Your task to perform on an android device: Search for custom wallets on etsy. Image 0: 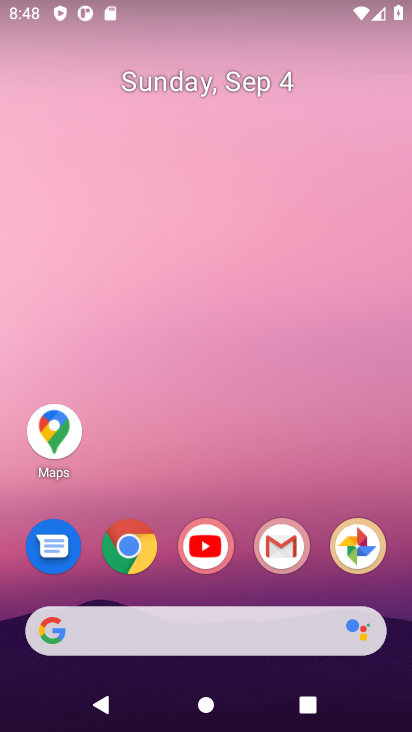
Step 0: click (126, 554)
Your task to perform on an android device: Search for custom wallets on etsy. Image 1: 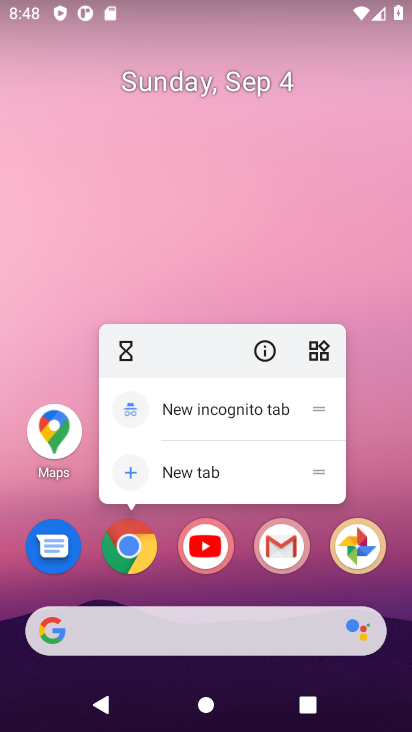
Step 1: click (128, 549)
Your task to perform on an android device: Search for custom wallets on etsy. Image 2: 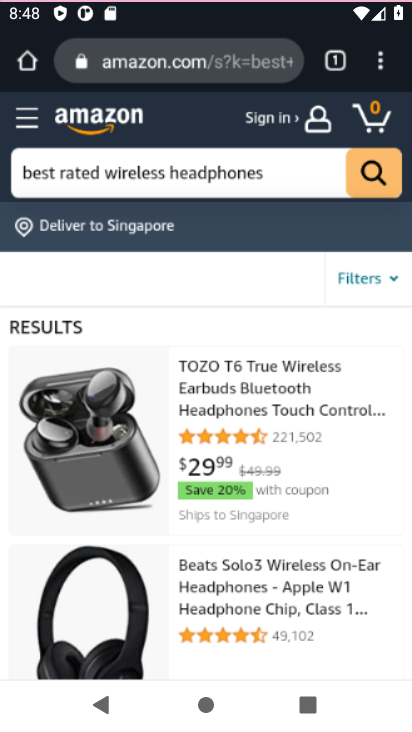
Step 2: click (131, 555)
Your task to perform on an android device: Search for custom wallets on etsy. Image 3: 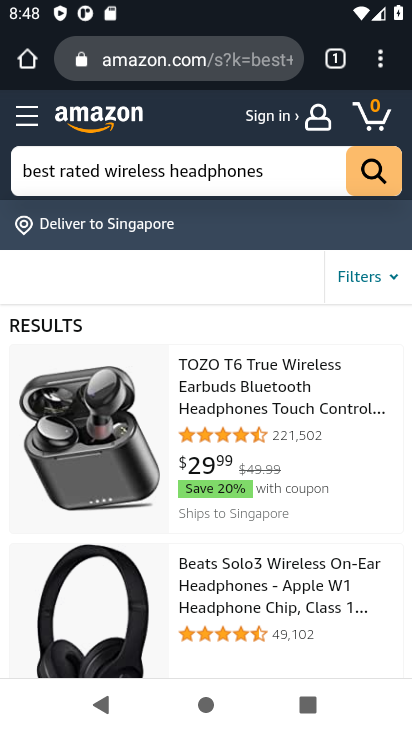
Step 3: click (148, 72)
Your task to perform on an android device: Search for custom wallets on etsy. Image 4: 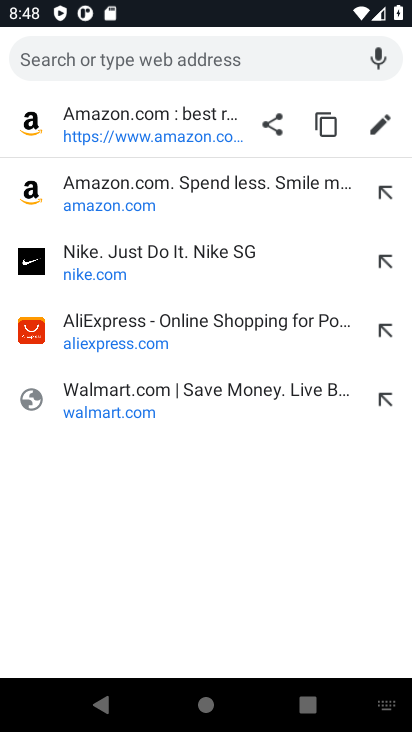
Step 4: type "etsy"
Your task to perform on an android device: Search for custom wallets on etsy. Image 5: 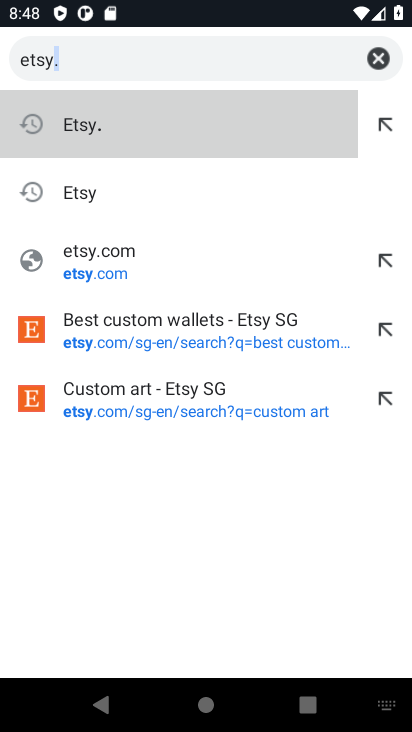
Step 5: click (62, 189)
Your task to perform on an android device: Search for custom wallets on etsy. Image 6: 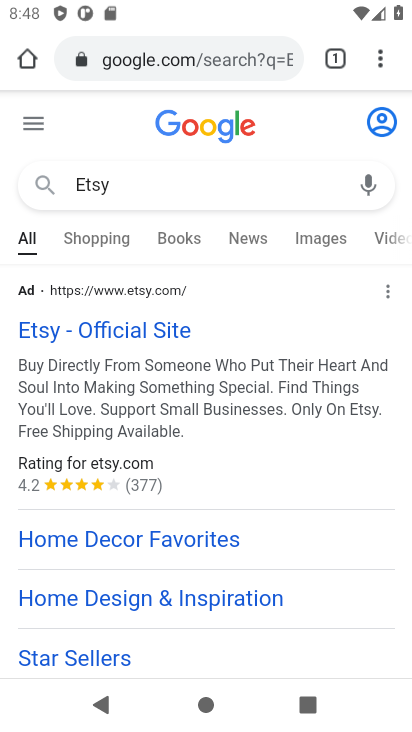
Step 6: drag from (294, 526) to (311, 148)
Your task to perform on an android device: Search for custom wallets on etsy. Image 7: 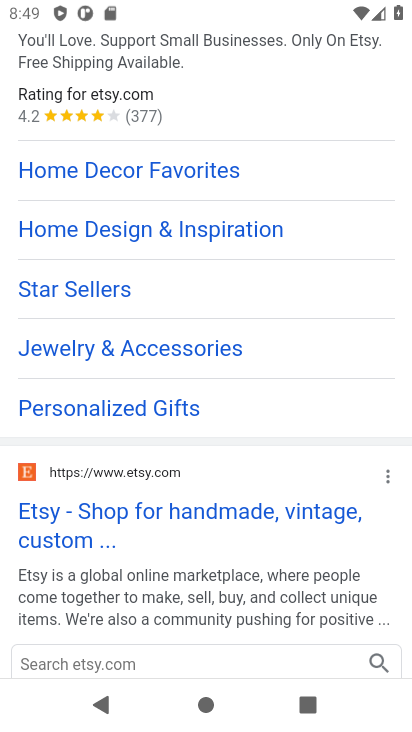
Step 7: click (51, 502)
Your task to perform on an android device: Search for custom wallets on etsy. Image 8: 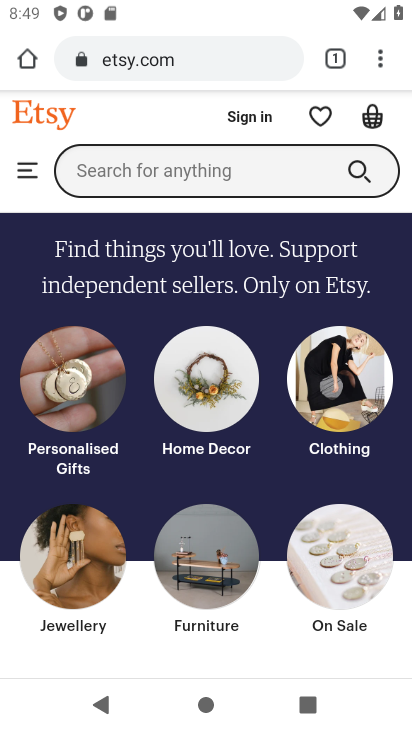
Step 8: click (142, 174)
Your task to perform on an android device: Search for custom wallets on etsy. Image 9: 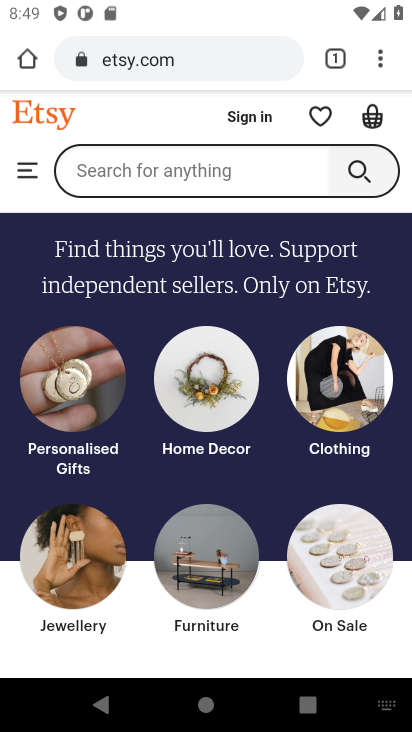
Step 9: type "custom wallets"
Your task to perform on an android device: Search for custom wallets on etsy. Image 10: 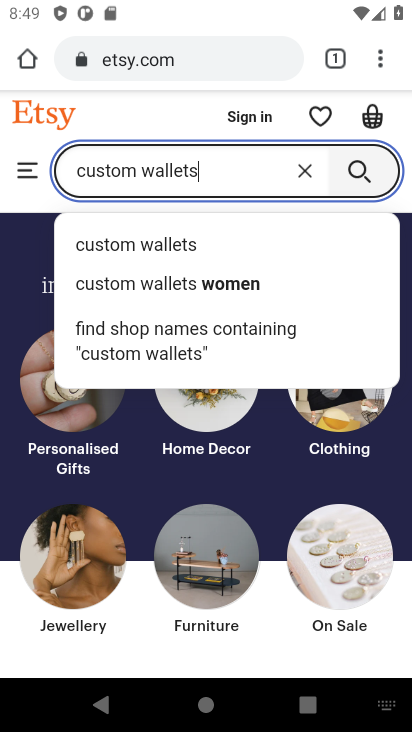
Step 10: click (192, 240)
Your task to perform on an android device: Search for custom wallets on etsy. Image 11: 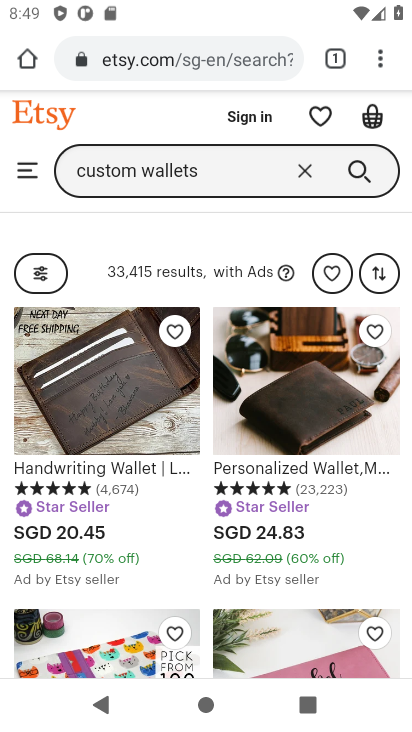
Step 11: task complete